Your task to perform on an android device: check storage Image 0: 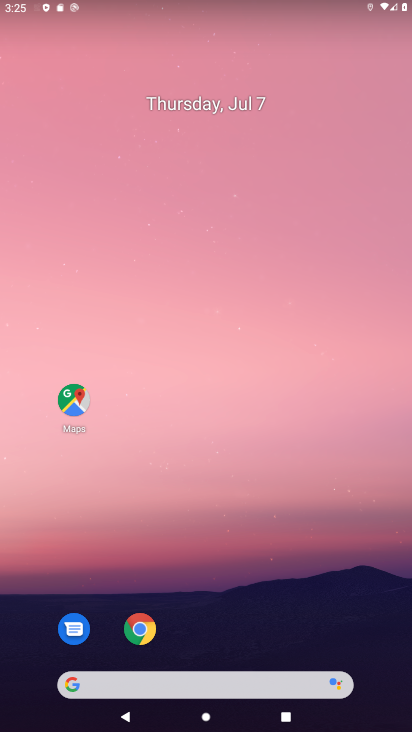
Step 0: press home button
Your task to perform on an android device: check storage Image 1: 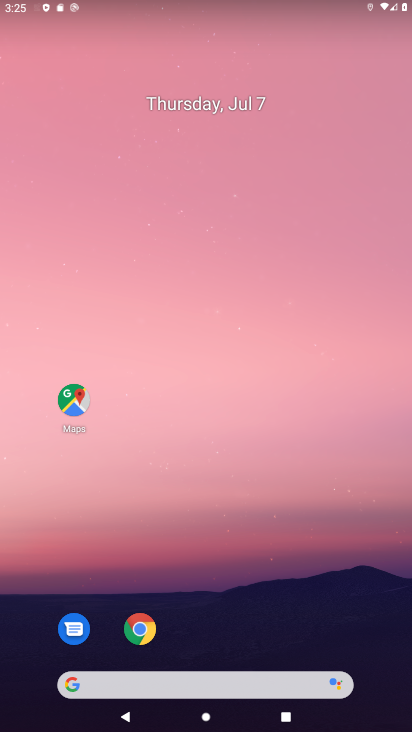
Step 1: drag from (284, 626) to (253, 23)
Your task to perform on an android device: check storage Image 2: 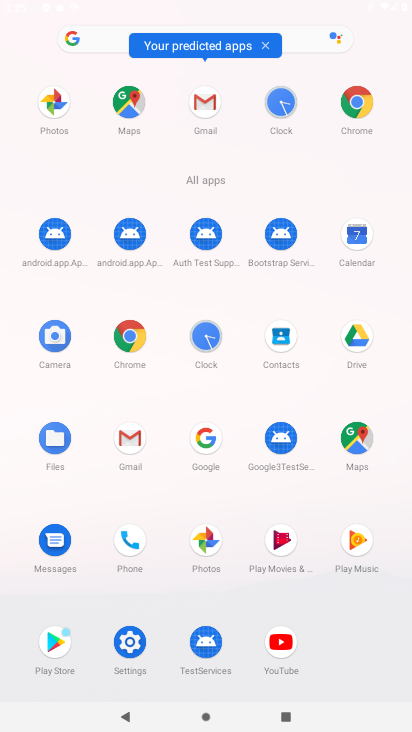
Step 2: click (126, 646)
Your task to perform on an android device: check storage Image 3: 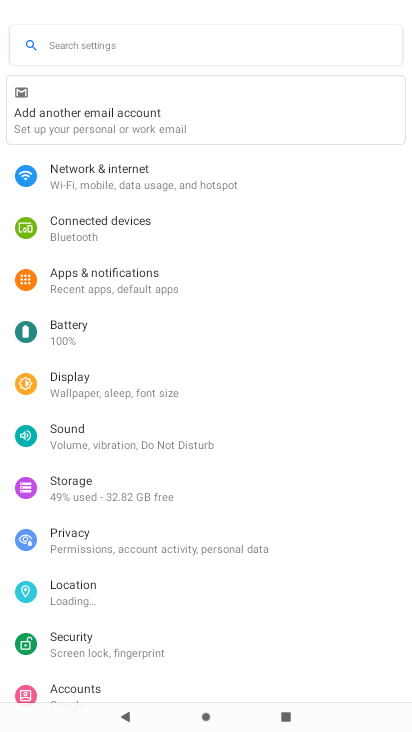
Step 3: click (98, 479)
Your task to perform on an android device: check storage Image 4: 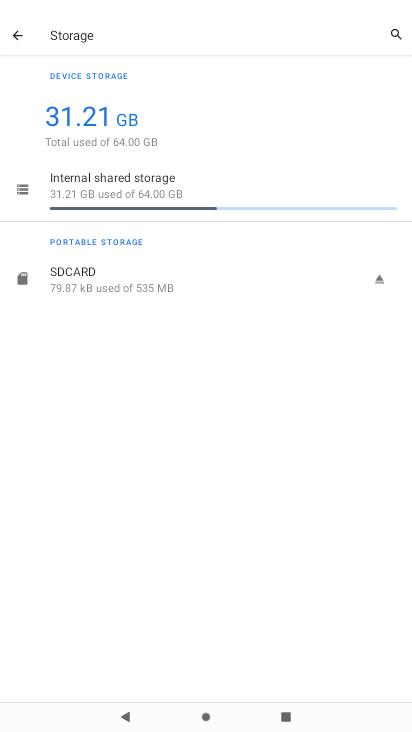
Step 4: click (210, 200)
Your task to perform on an android device: check storage Image 5: 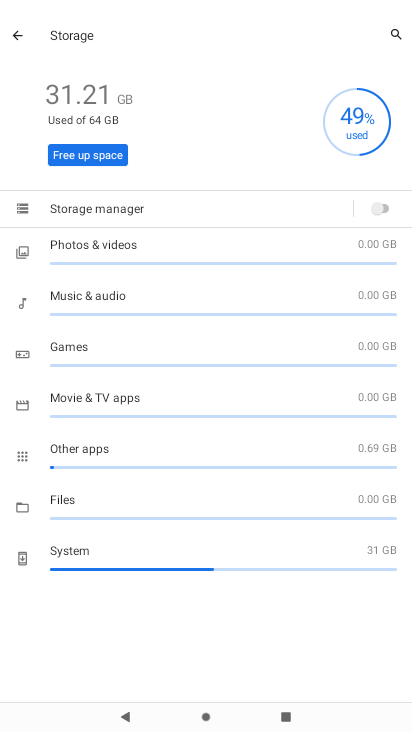
Step 5: task complete